Your task to perform on an android device: search for starred emails in the gmail app Image 0: 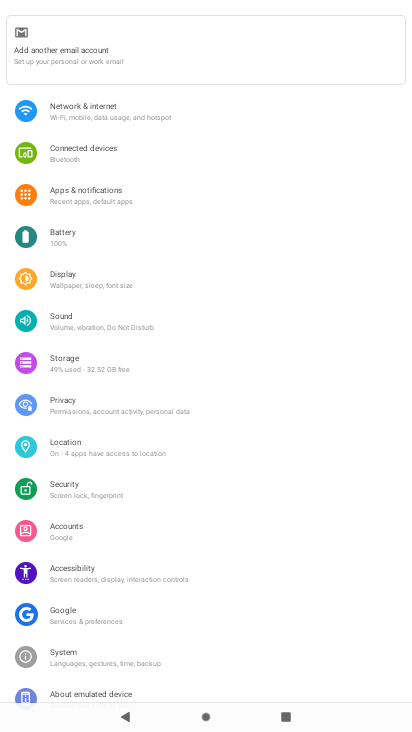
Step 0: press home button
Your task to perform on an android device: search for starred emails in the gmail app Image 1: 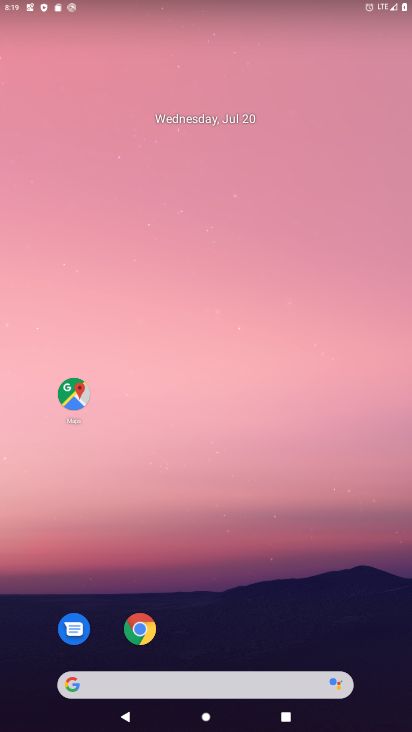
Step 1: drag from (192, 568) to (211, 221)
Your task to perform on an android device: search for starred emails in the gmail app Image 2: 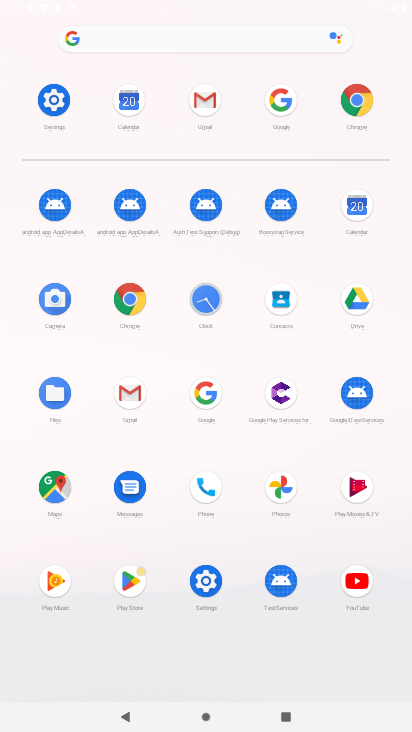
Step 2: click (208, 92)
Your task to perform on an android device: search for starred emails in the gmail app Image 3: 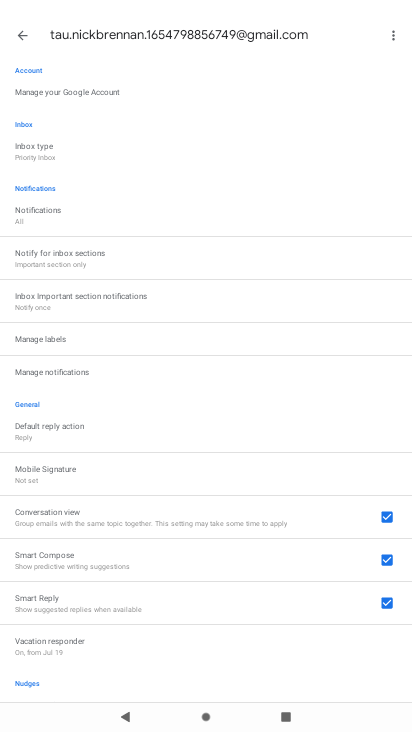
Step 3: click (19, 31)
Your task to perform on an android device: search for starred emails in the gmail app Image 4: 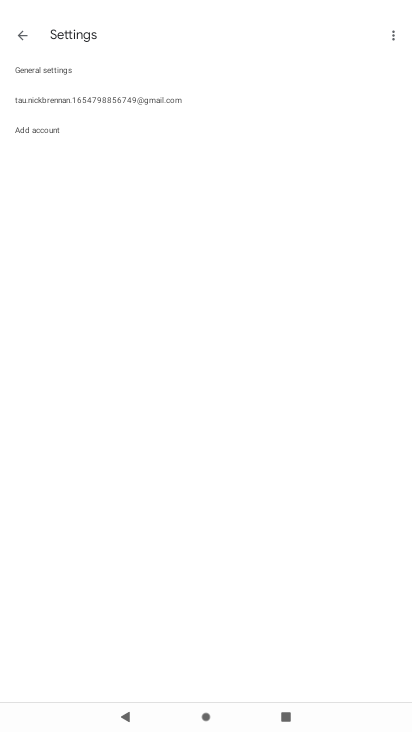
Step 4: click (24, 35)
Your task to perform on an android device: search for starred emails in the gmail app Image 5: 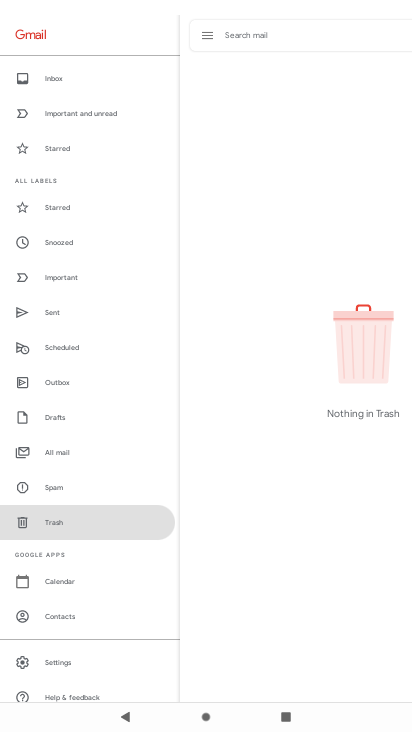
Step 5: click (56, 205)
Your task to perform on an android device: search for starred emails in the gmail app Image 6: 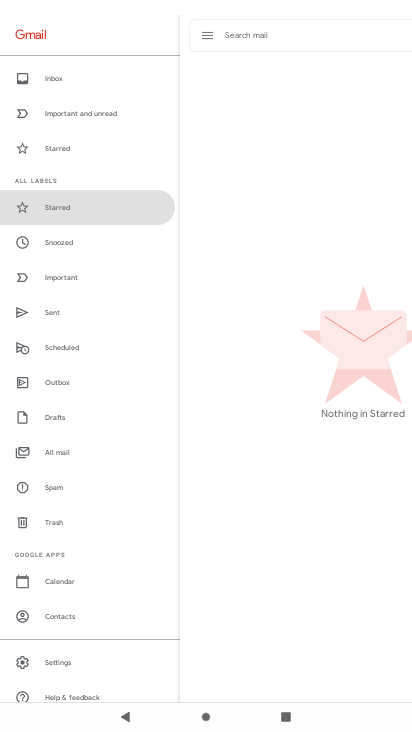
Step 6: task complete